Your task to perform on an android device: turn on sleep mode Image 0: 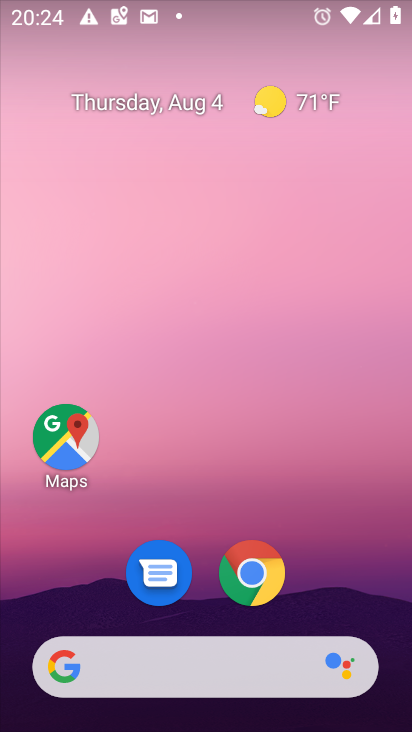
Step 0: press back button
Your task to perform on an android device: turn on sleep mode Image 1: 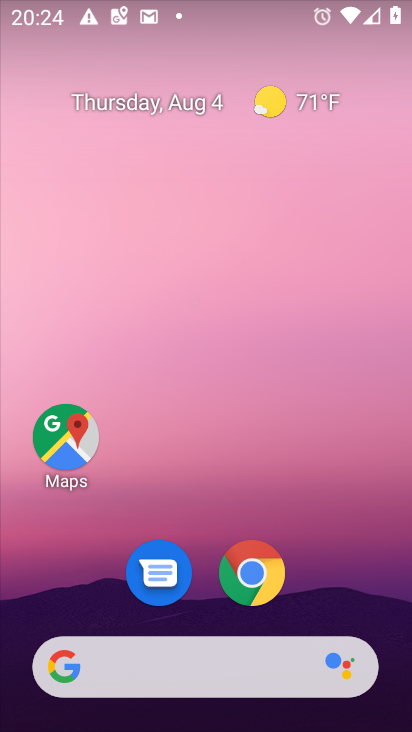
Step 1: drag from (194, 656) to (246, 2)
Your task to perform on an android device: turn on sleep mode Image 2: 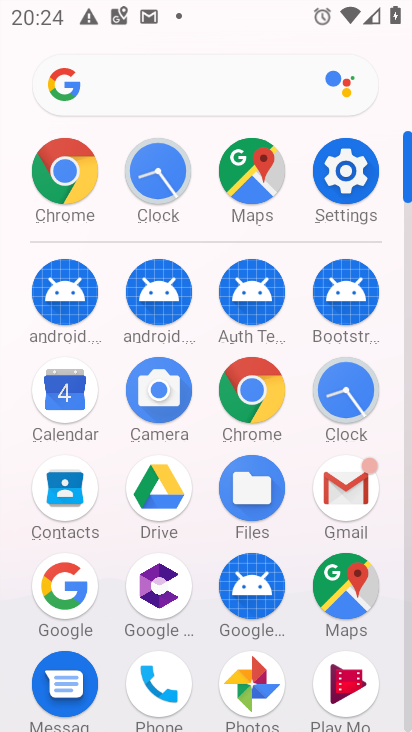
Step 2: click (340, 160)
Your task to perform on an android device: turn on sleep mode Image 3: 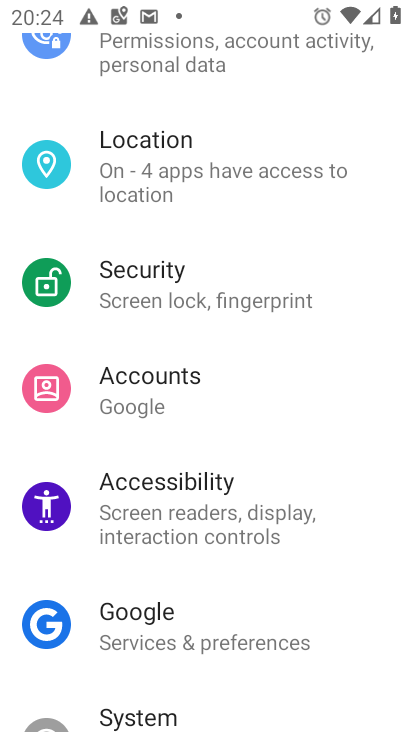
Step 3: drag from (262, 260) to (248, 605)
Your task to perform on an android device: turn on sleep mode Image 4: 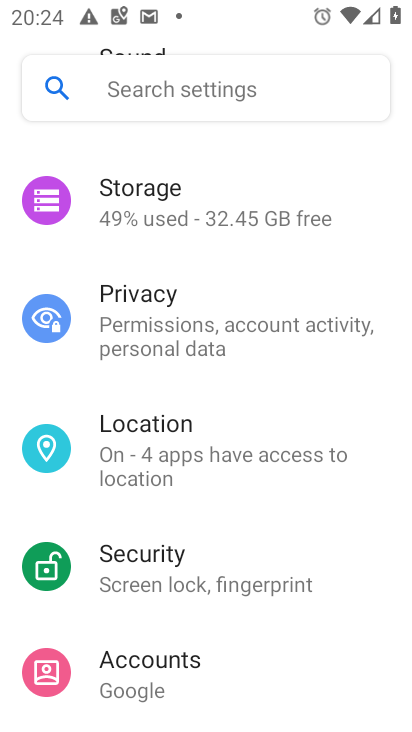
Step 4: drag from (158, 146) to (262, 528)
Your task to perform on an android device: turn on sleep mode Image 5: 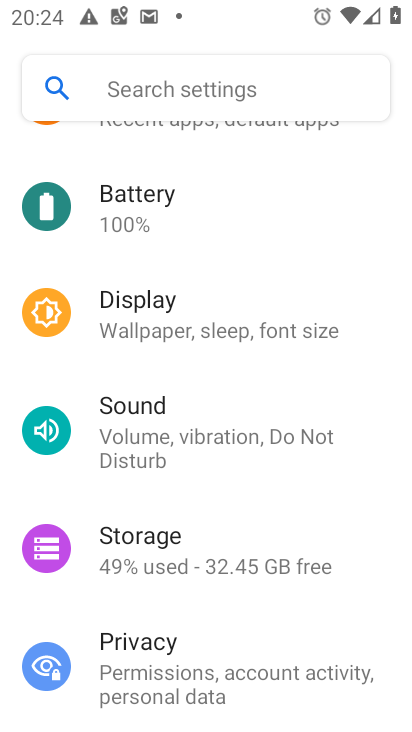
Step 5: click (172, 324)
Your task to perform on an android device: turn on sleep mode Image 6: 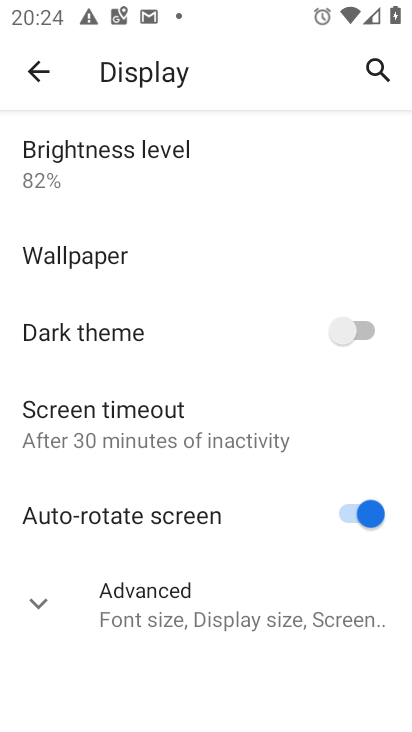
Step 6: click (186, 621)
Your task to perform on an android device: turn on sleep mode Image 7: 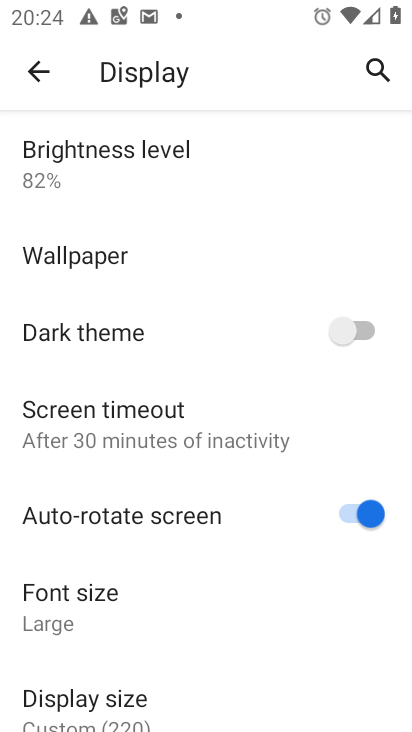
Step 7: task complete